Your task to perform on an android device: Open the map Image 0: 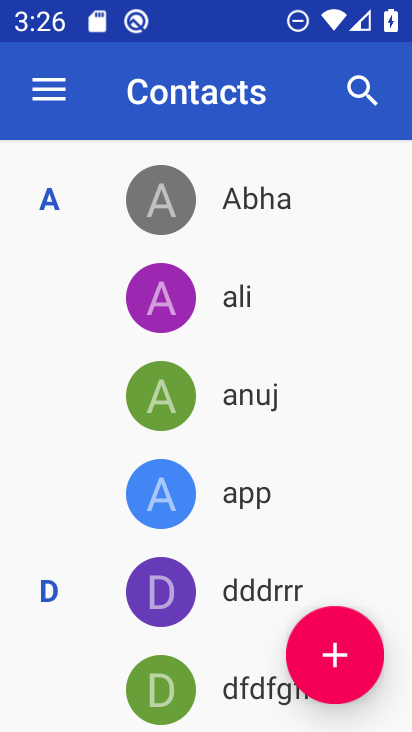
Step 0: press home button
Your task to perform on an android device: Open the map Image 1: 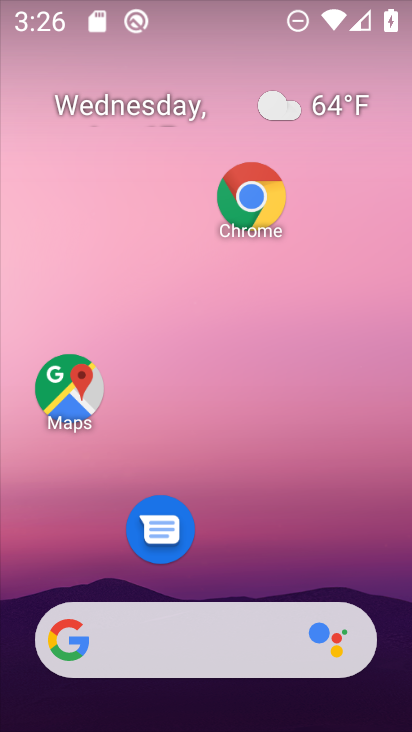
Step 1: drag from (209, 615) to (148, 277)
Your task to perform on an android device: Open the map Image 2: 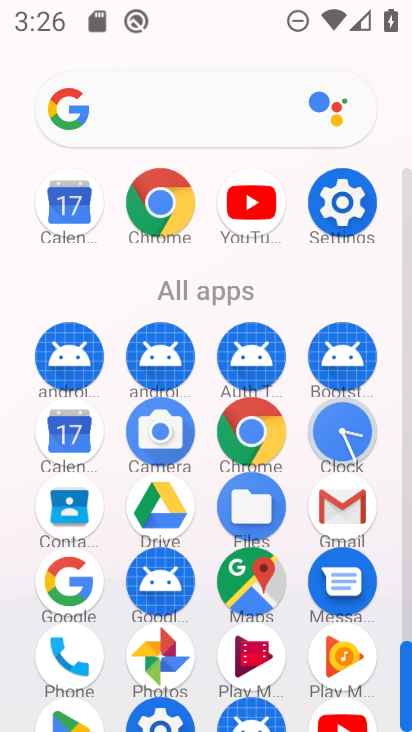
Step 2: click (242, 572)
Your task to perform on an android device: Open the map Image 3: 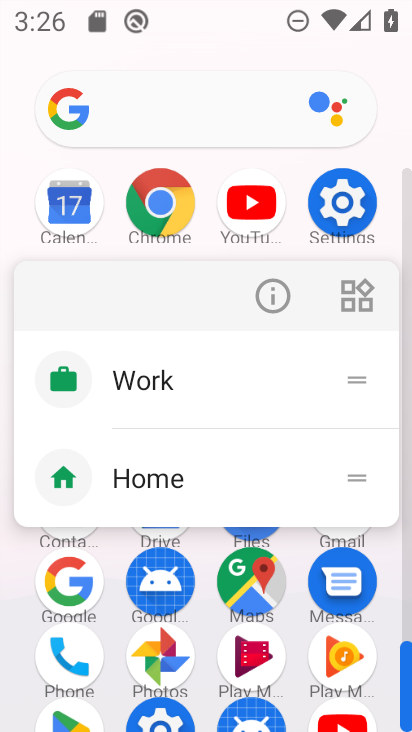
Step 3: click (244, 594)
Your task to perform on an android device: Open the map Image 4: 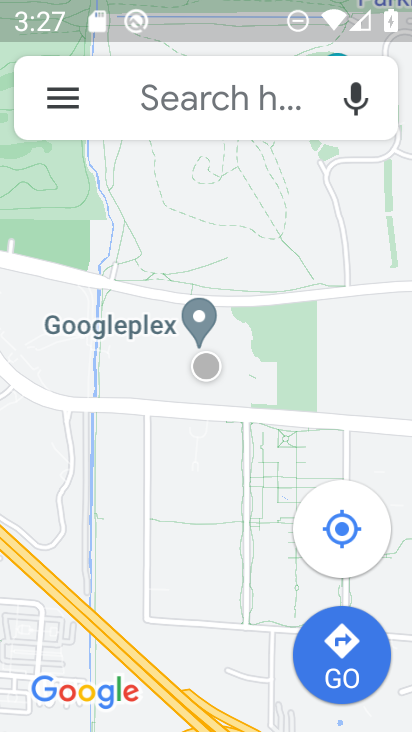
Step 4: task complete